Your task to perform on an android device: turn off smart reply in the gmail app Image 0: 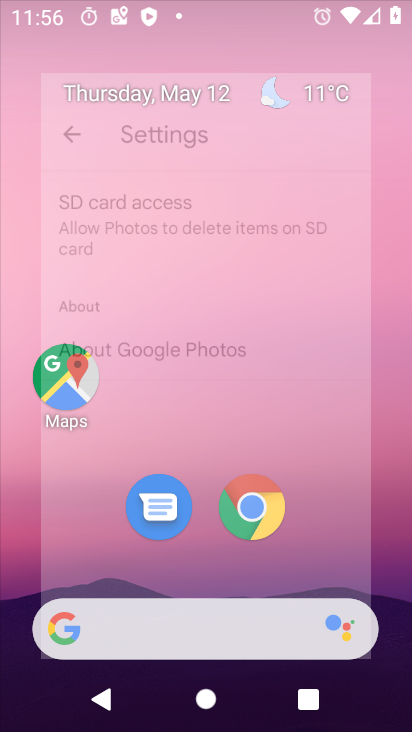
Step 0: drag from (221, 583) to (268, 0)
Your task to perform on an android device: turn off smart reply in the gmail app Image 1: 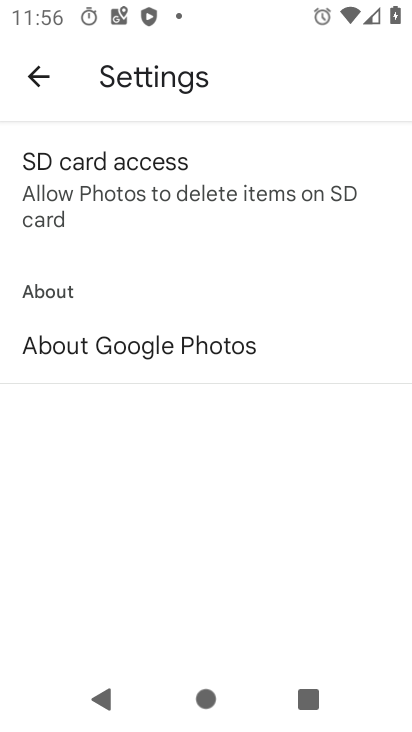
Step 1: click (36, 67)
Your task to perform on an android device: turn off smart reply in the gmail app Image 2: 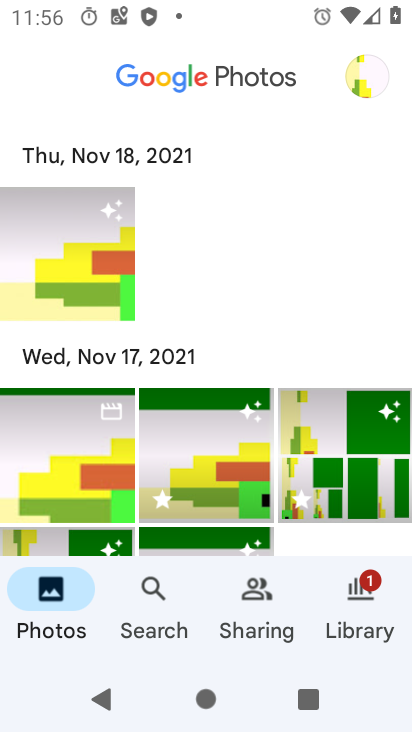
Step 2: press home button
Your task to perform on an android device: turn off smart reply in the gmail app Image 3: 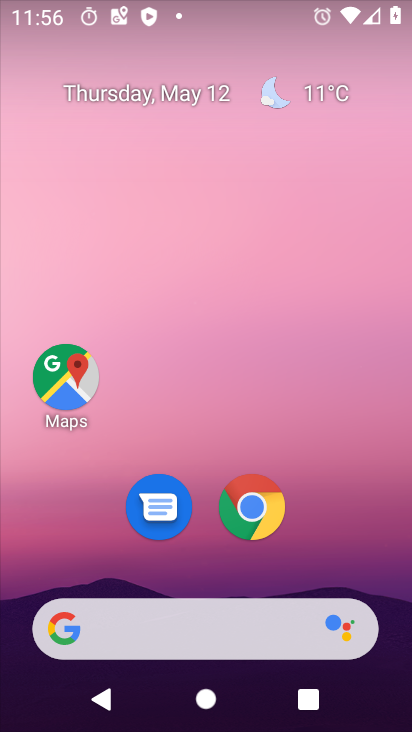
Step 3: drag from (194, 573) to (236, 4)
Your task to perform on an android device: turn off smart reply in the gmail app Image 4: 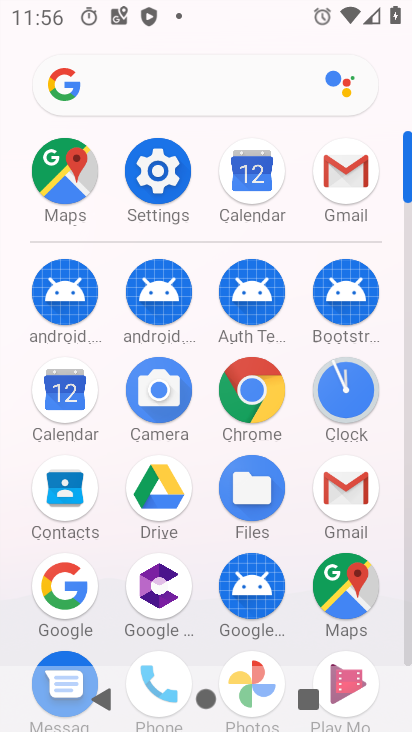
Step 4: click (352, 499)
Your task to perform on an android device: turn off smart reply in the gmail app Image 5: 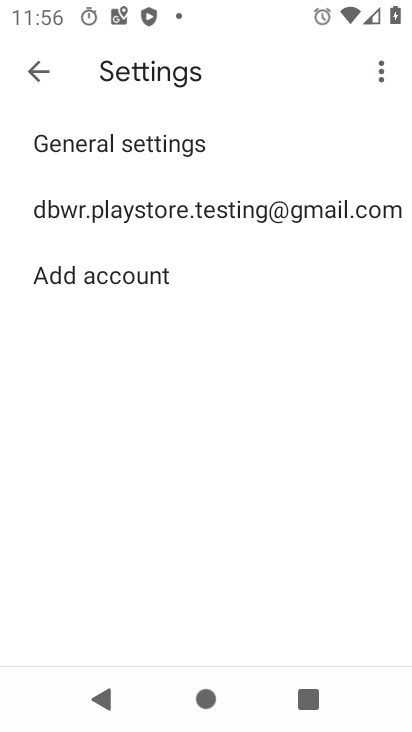
Step 5: click (114, 210)
Your task to perform on an android device: turn off smart reply in the gmail app Image 6: 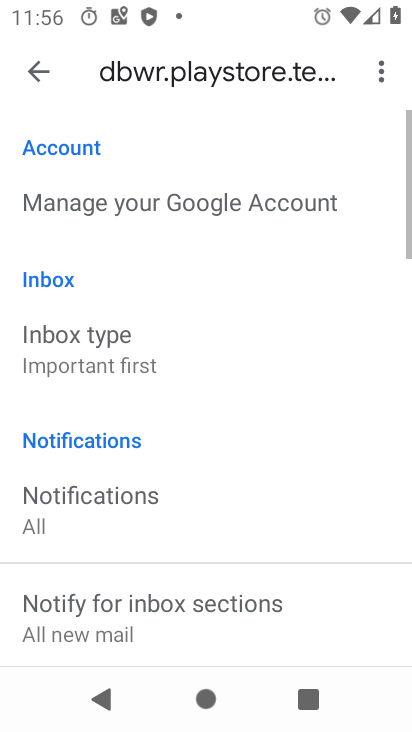
Step 6: drag from (310, 552) to (292, 41)
Your task to perform on an android device: turn off smart reply in the gmail app Image 7: 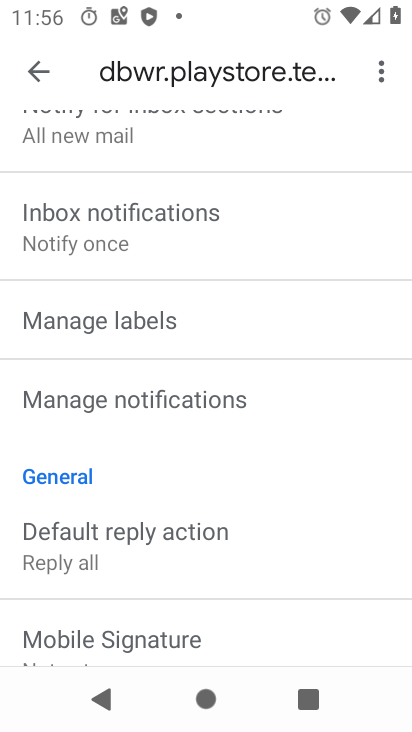
Step 7: drag from (289, 571) to (276, 77)
Your task to perform on an android device: turn off smart reply in the gmail app Image 8: 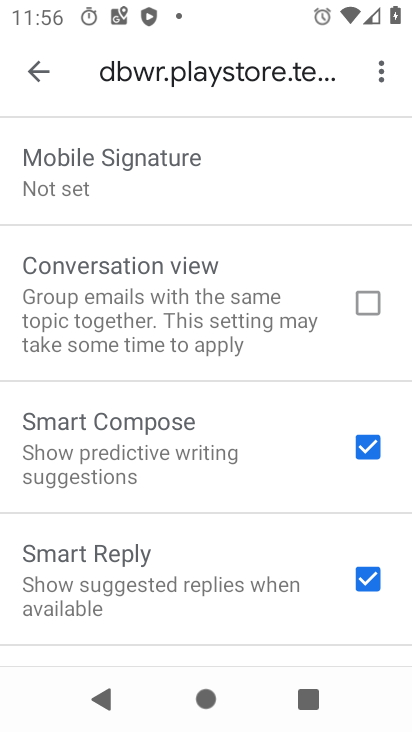
Step 8: click (360, 586)
Your task to perform on an android device: turn off smart reply in the gmail app Image 9: 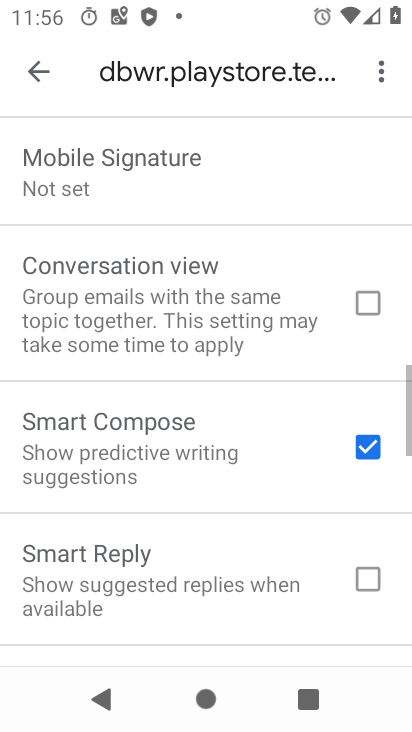
Step 9: task complete